Your task to perform on an android device: turn notification dots on Image 0: 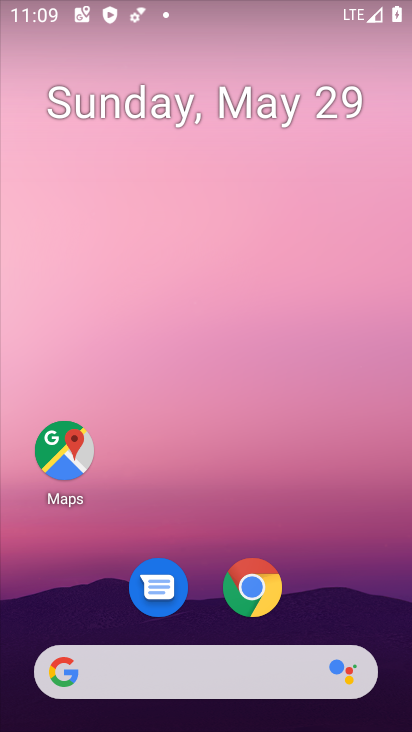
Step 0: drag from (364, 604) to (236, 70)
Your task to perform on an android device: turn notification dots on Image 1: 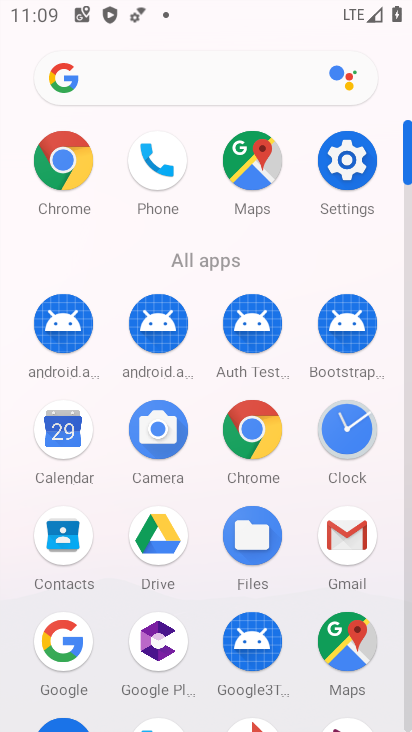
Step 1: click (348, 171)
Your task to perform on an android device: turn notification dots on Image 2: 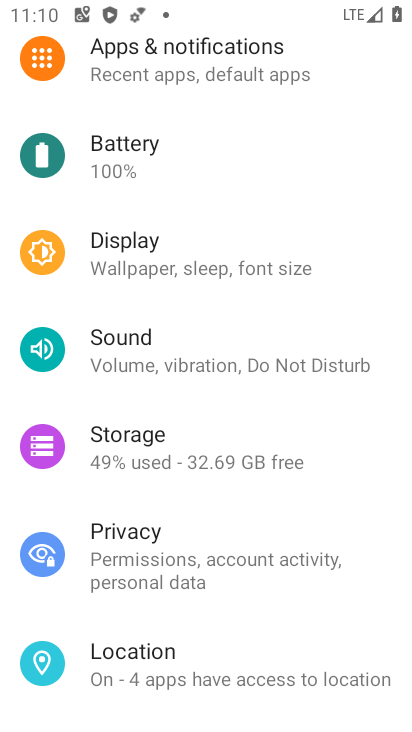
Step 2: click (197, 74)
Your task to perform on an android device: turn notification dots on Image 3: 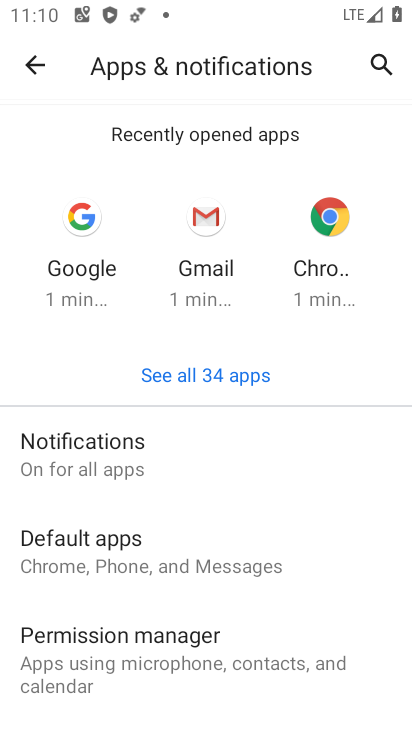
Step 3: click (138, 461)
Your task to perform on an android device: turn notification dots on Image 4: 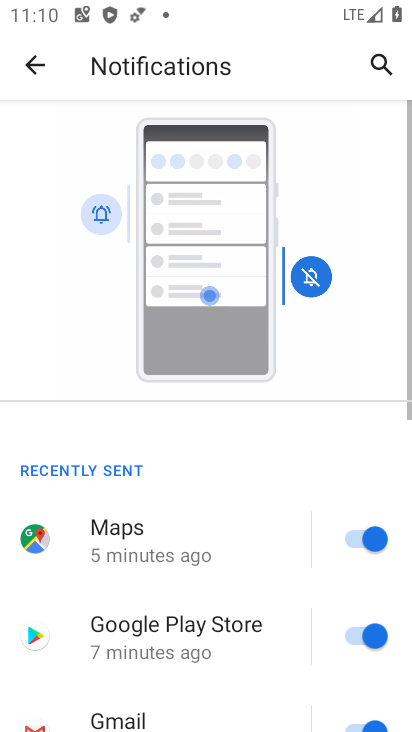
Step 4: drag from (131, 453) to (144, 16)
Your task to perform on an android device: turn notification dots on Image 5: 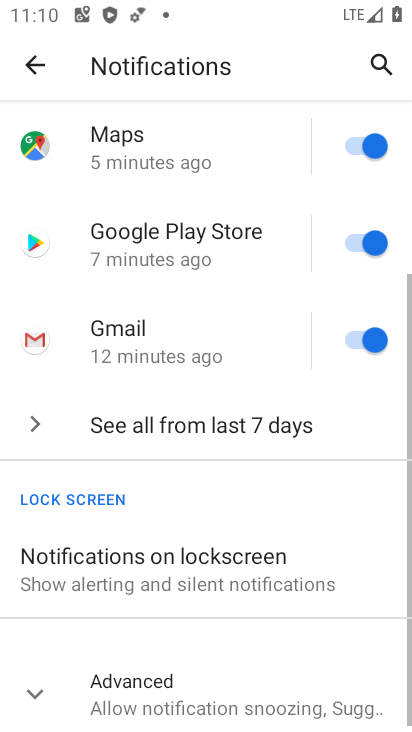
Step 5: click (157, 667)
Your task to perform on an android device: turn notification dots on Image 6: 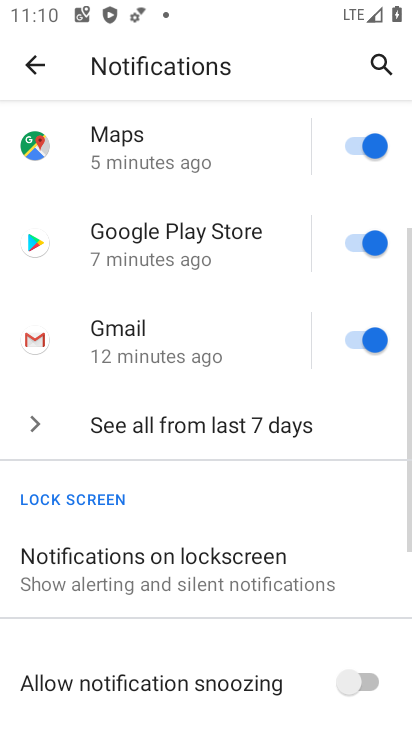
Step 6: task complete